Your task to perform on an android device: check storage Image 0: 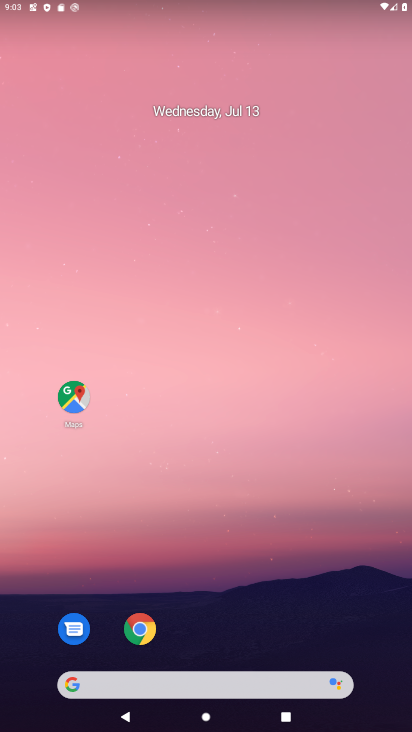
Step 0: drag from (253, 613) to (226, 116)
Your task to perform on an android device: check storage Image 1: 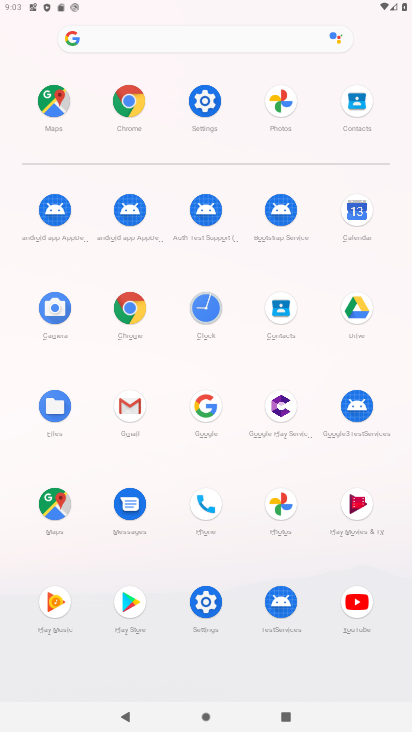
Step 1: click (205, 607)
Your task to perform on an android device: check storage Image 2: 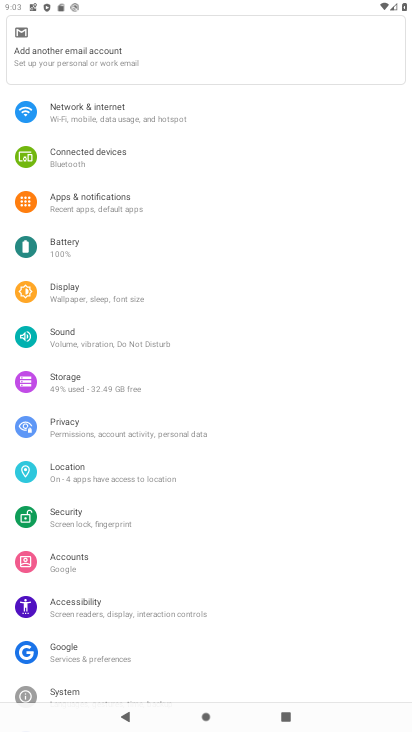
Step 2: click (60, 375)
Your task to perform on an android device: check storage Image 3: 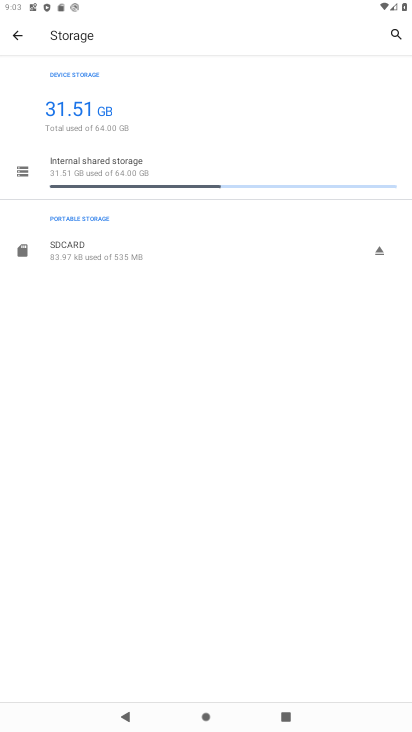
Step 3: task complete